Your task to perform on an android device: toggle javascript in the chrome app Image 0: 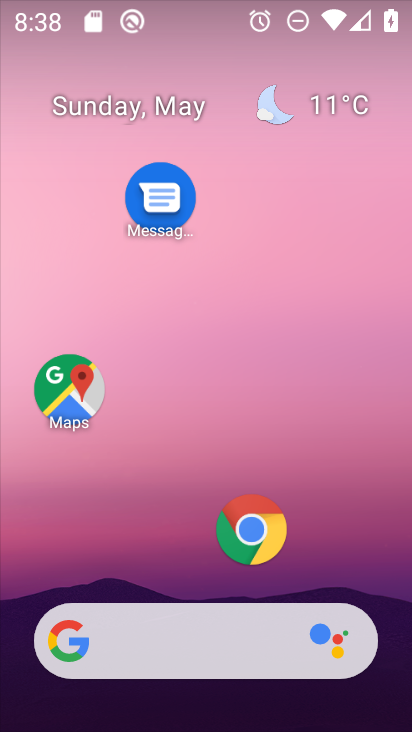
Step 0: press home button
Your task to perform on an android device: toggle javascript in the chrome app Image 1: 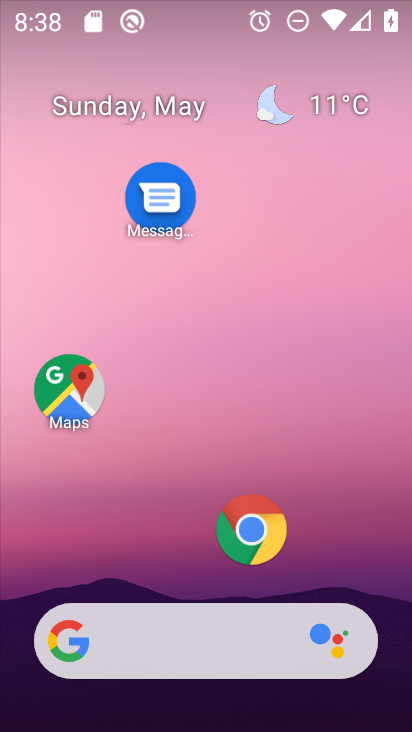
Step 1: click (253, 529)
Your task to perform on an android device: toggle javascript in the chrome app Image 2: 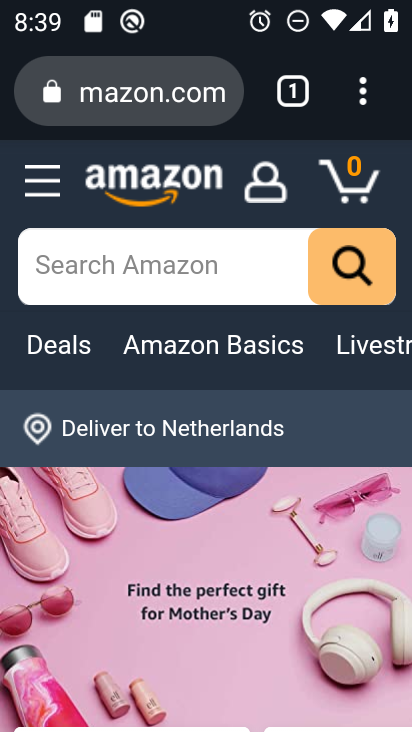
Step 2: click (370, 88)
Your task to perform on an android device: toggle javascript in the chrome app Image 3: 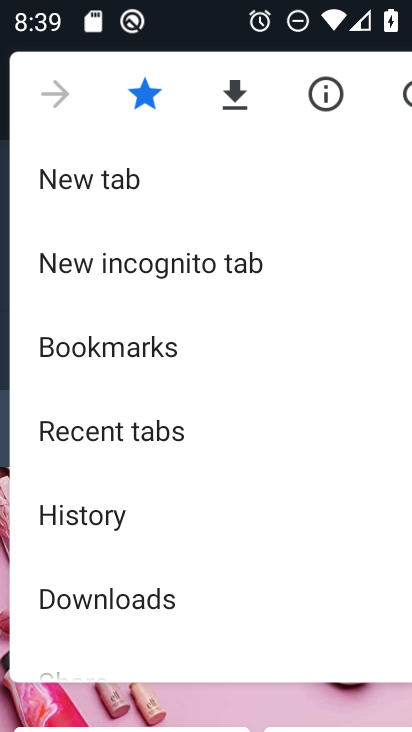
Step 3: drag from (232, 599) to (286, 228)
Your task to perform on an android device: toggle javascript in the chrome app Image 4: 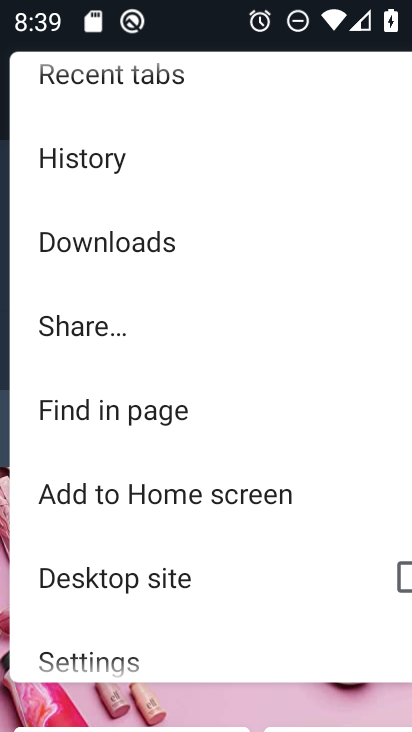
Step 4: click (167, 654)
Your task to perform on an android device: toggle javascript in the chrome app Image 5: 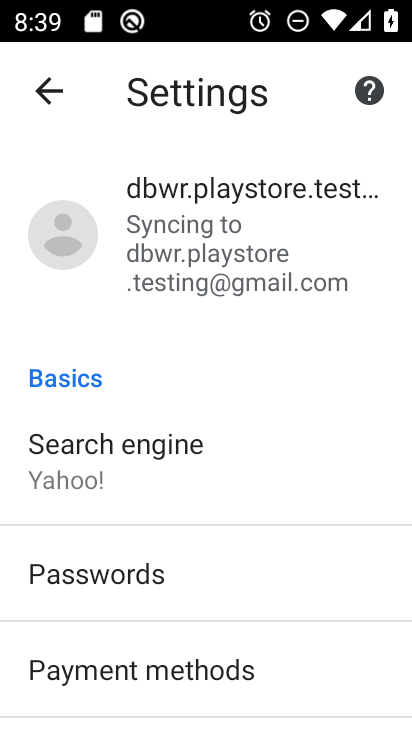
Step 5: drag from (239, 665) to (282, 174)
Your task to perform on an android device: toggle javascript in the chrome app Image 6: 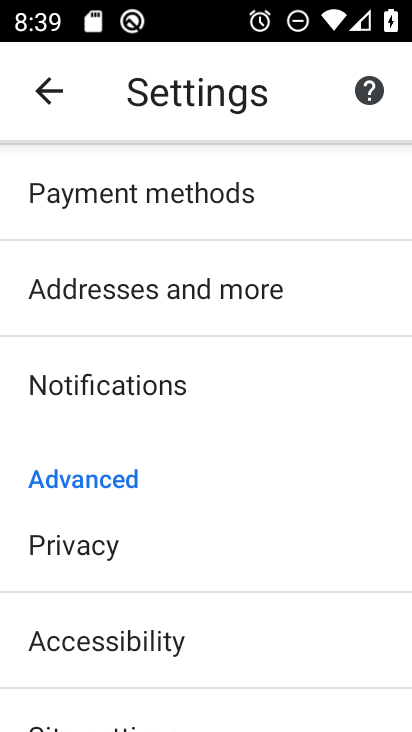
Step 6: drag from (208, 638) to (226, 146)
Your task to perform on an android device: toggle javascript in the chrome app Image 7: 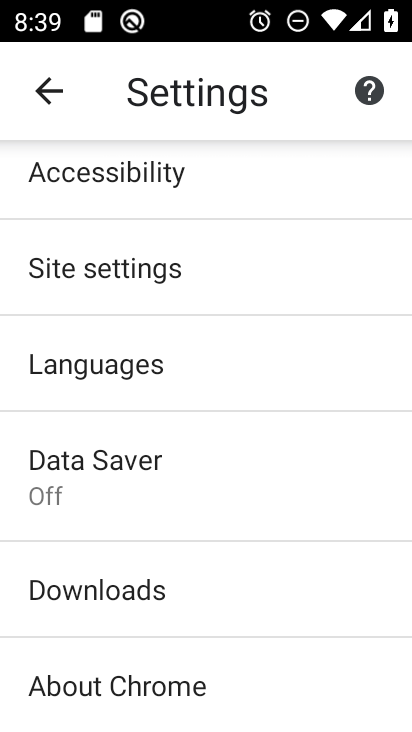
Step 7: click (202, 271)
Your task to perform on an android device: toggle javascript in the chrome app Image 8: 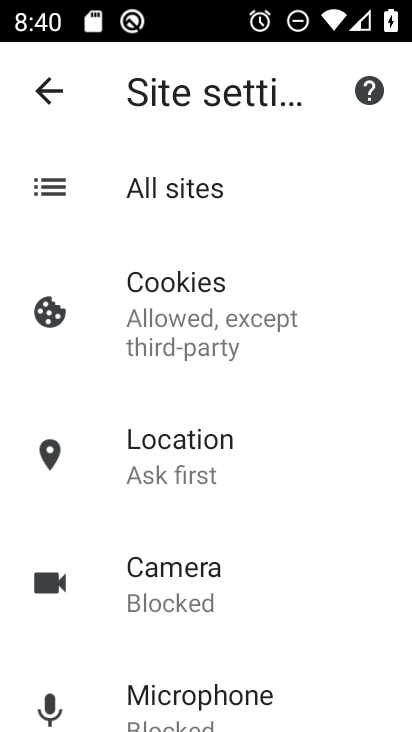
Step 8: drag from (223, 658) to (220, 182)
Your task to perform on an android device: toggle javascript in the chrome app Image 9: 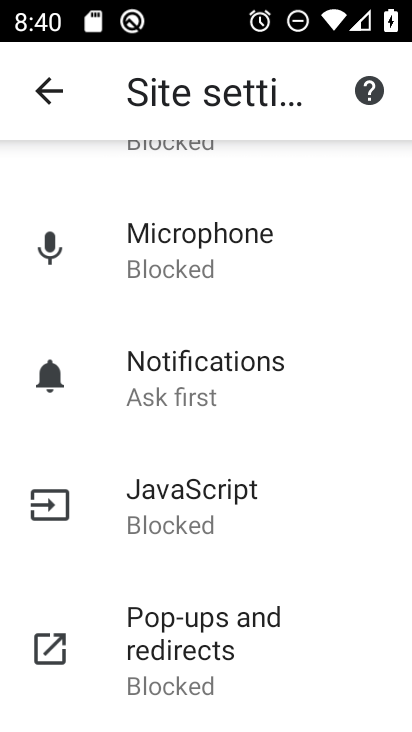
Step 9: click (180, 499)
Your task to perform on an android device: toggle javascript in the chrome app Image 10: 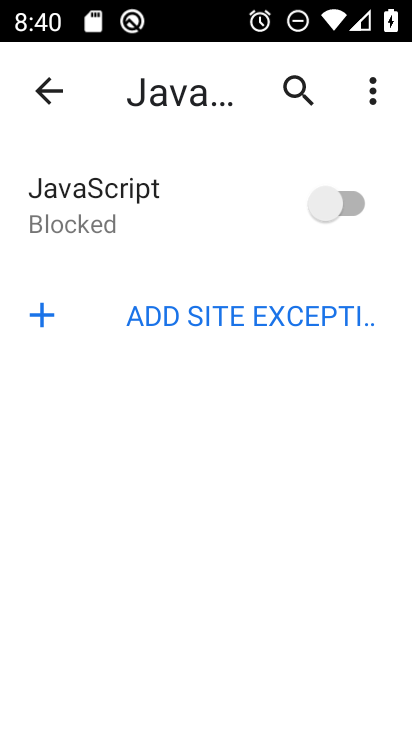
Step 10: click (350, 198)
Your task to perform on an android device: toggle javascript in the chrome app Image 11: 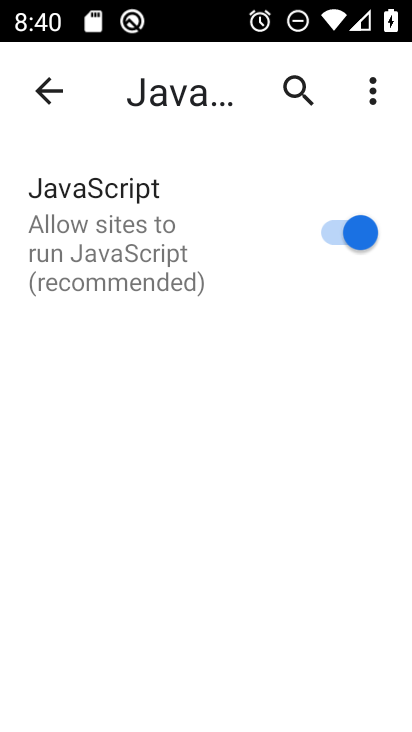
Step 11: task complete